Your task to perform on an android device: toggle data saver in the chrome app Image 0: 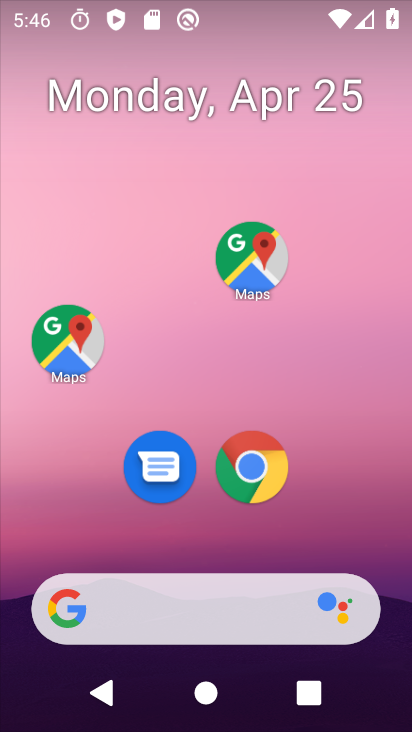
Step 0: drag from (344, 514) to (305, 6)
Your task to perform on an android device: toggle data saver in the chrome app Image 1: 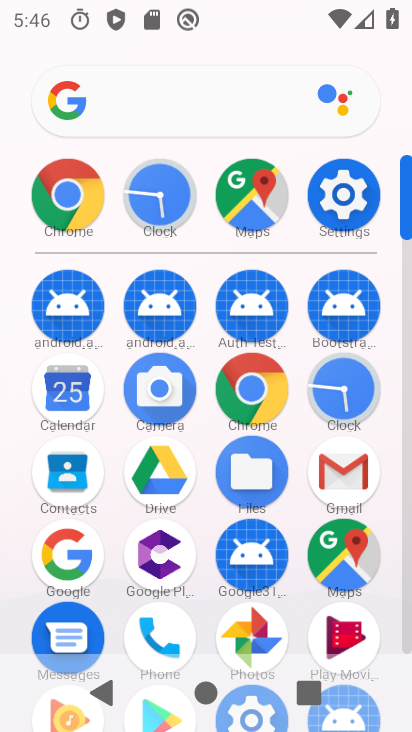
Step 1: click (260, 404)
Your task to perform on an android device: toggle data saver in the chrome app Image 2: 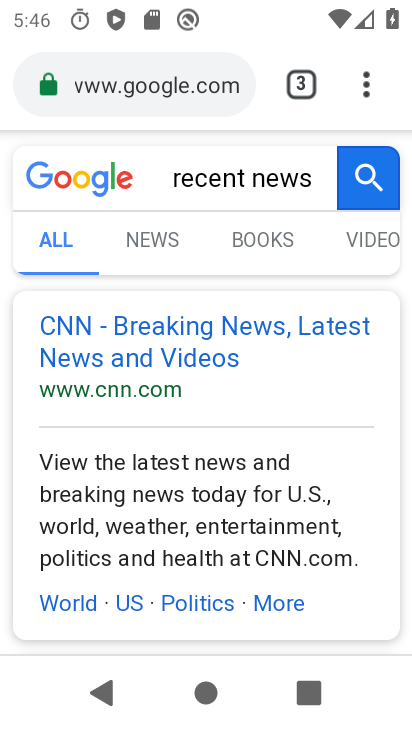
Step 2: drag from (369, 74) to (103, 583)
Your task to perform on an android device: toggle data saver in the chrome app Image 3: 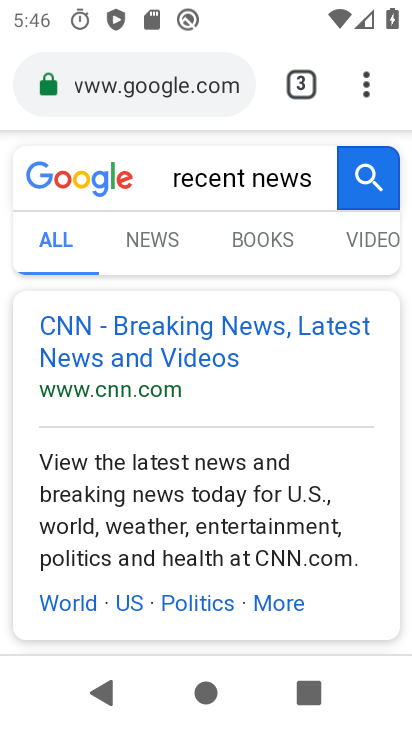
Step 3: click (104, 531)
Your task to perform on an android device: toggle data saver in the chrome app Image 4: 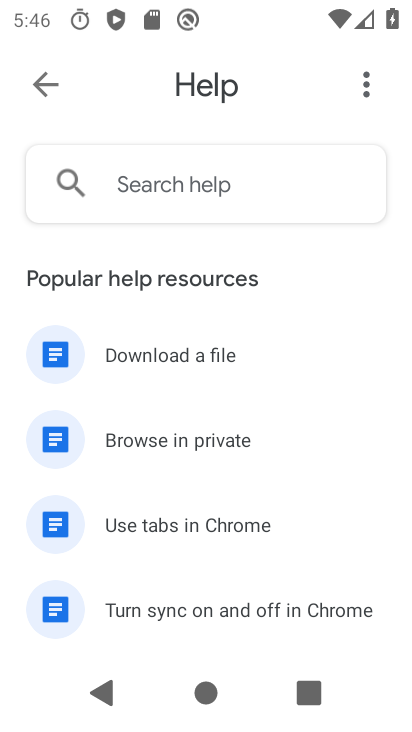
Step 4: press back button
Your task to perform on an android device: toggle data saver in the chrome app Image 5: 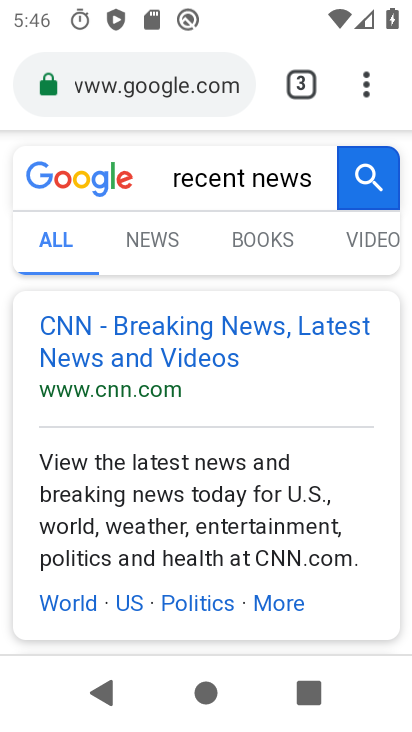
Step 5: drag from (369, 78) to (165, 521)
Your task to perform on an android device: toggle data saver in the chrome app Image 6: 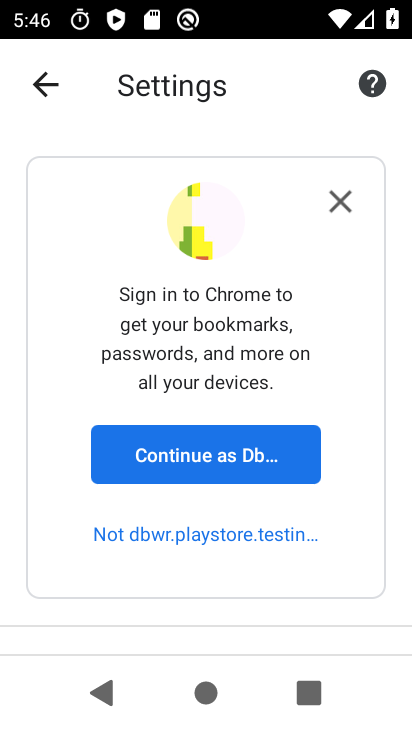
Step 6: drag from (186, 615) to (266, 65)
Your task to perform on an android device: toggle data saver in the chrome app Image 7: 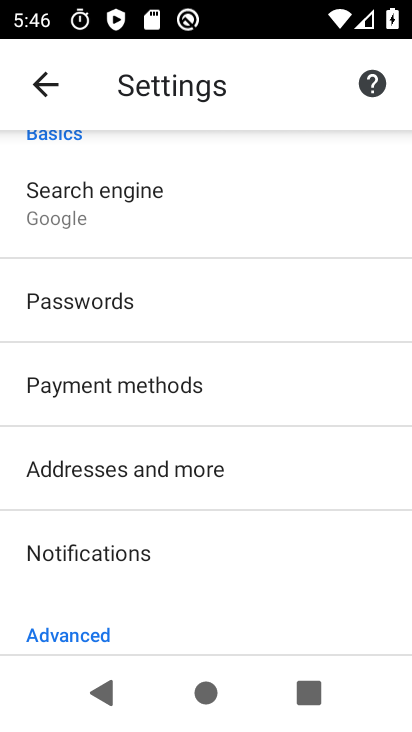
Step 7: drag from (220, 567) to (277, 161)
Your task to perform on an android device: toggle data saver in the chrome app Image 8: 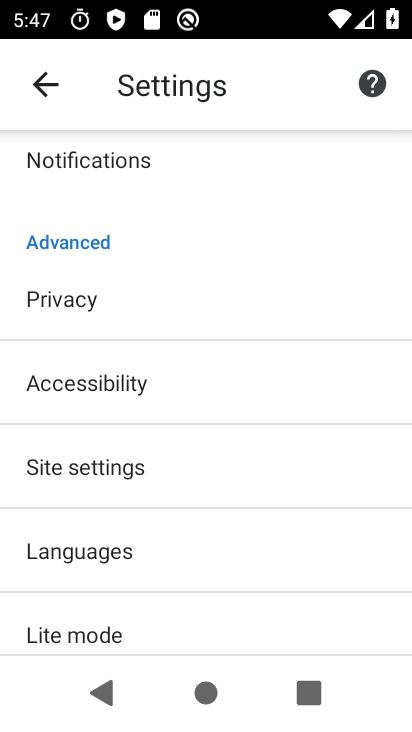
Step 8: click (138, 628)
Your task to perform on an android device: toggle data saver in the chrome app Image 9: 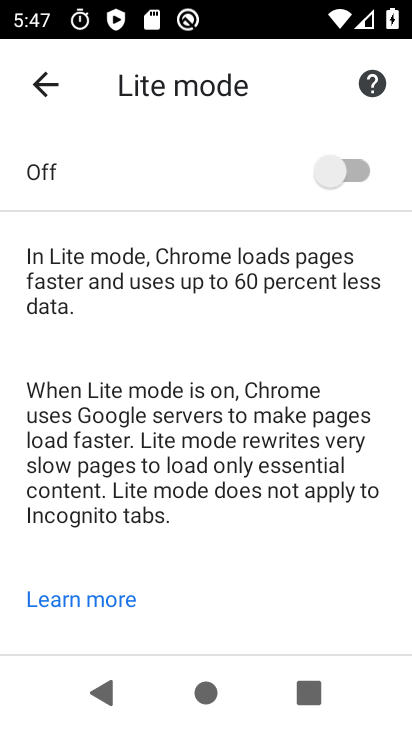
Step 9: click (360, 178)
Your task to perform on an android device: toggle data saver in the chrome app Image 10: 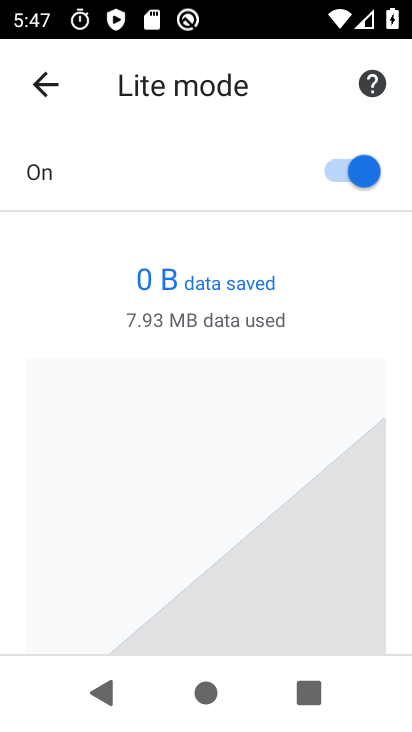
Step 10: task complete